Your task to perform on an android device: search for starred emails in the gmail app Image 0: 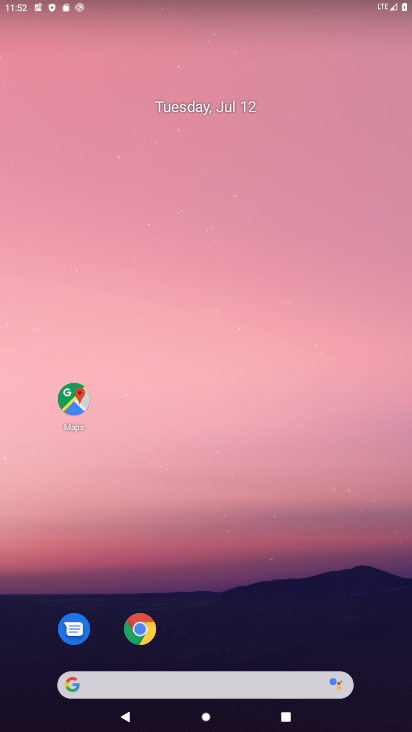
Step 0: press home button
Your task to perform on an android device: search for starred emails in the gmail app Image 1: 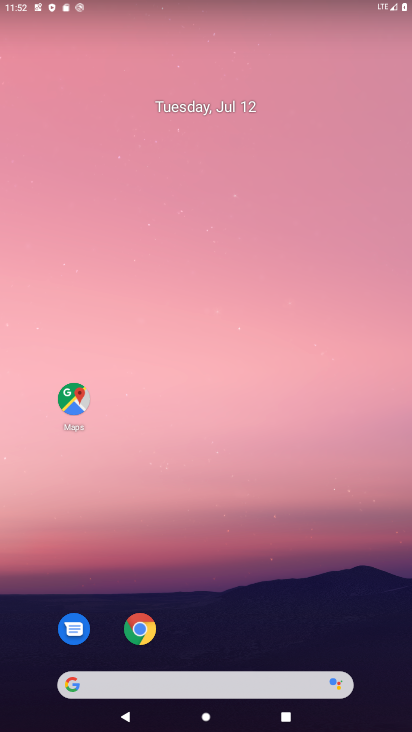
Step 1: drag from (215, 452) to (205, 60)
Your task to perform on an android device: search for starred emails in the gmail app Image 2: 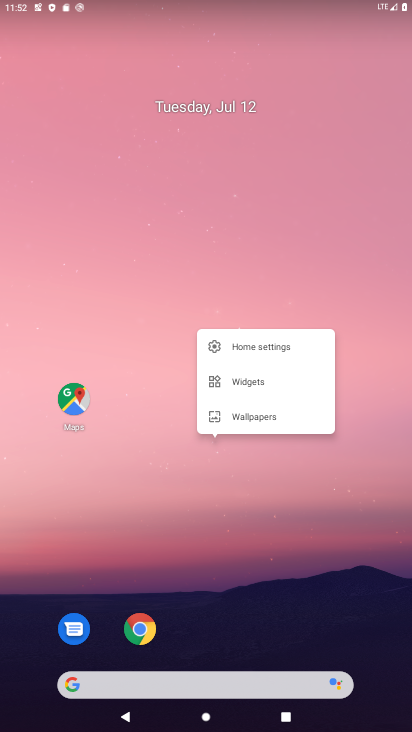
Step 2: drag from (205, 664) to (159, 127)
Your task to perform on an android device: search for starred emails in the gmail app Image 3: 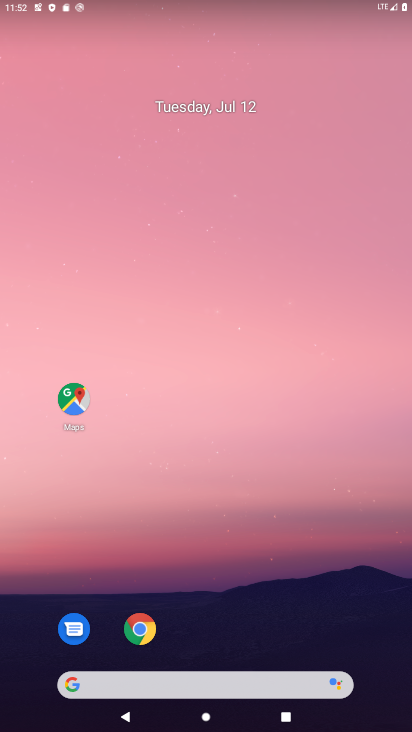
Step 3: drag from (220, 643) to (227, 61)
Your task to perform on an android device: search for starred emails in the gmail app Image 4: 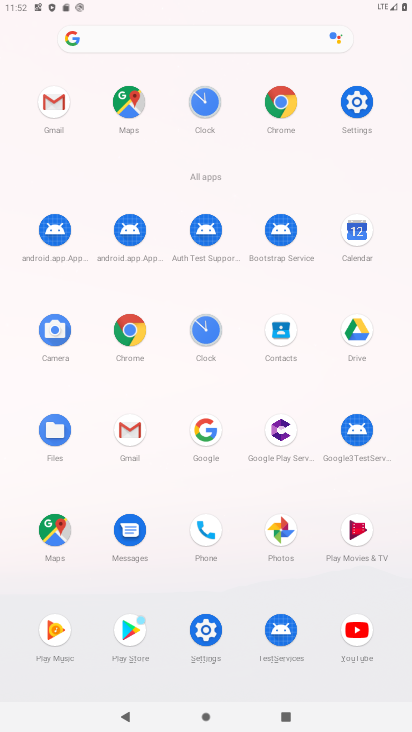
Step 4: click (48, 101)
Your task to perform on an android device: search for starred emails in the gmail app Image 5: 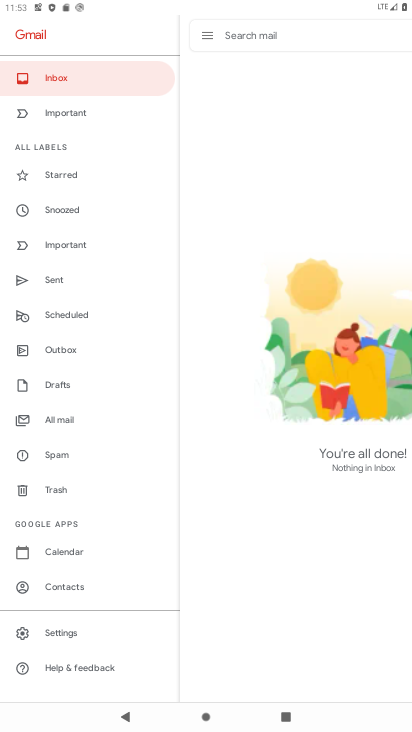
Step 5: click (73, 168)
Your task to perform on an android device: search for starred emails in the gmail app Image 6: 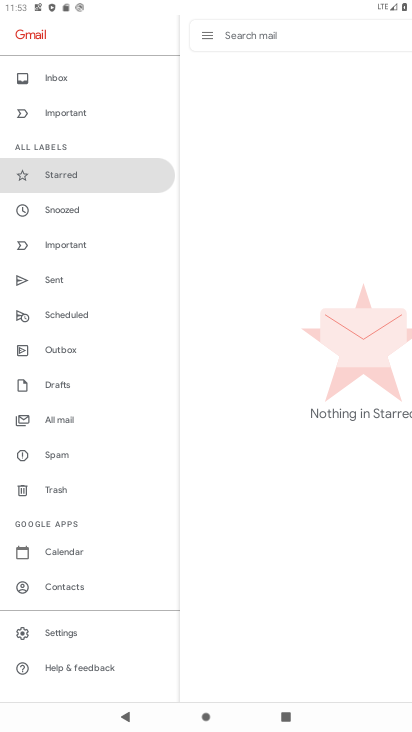
Step 6: task complete